Your task to perform on an android device: Open Chrome and go to settings Image 0: 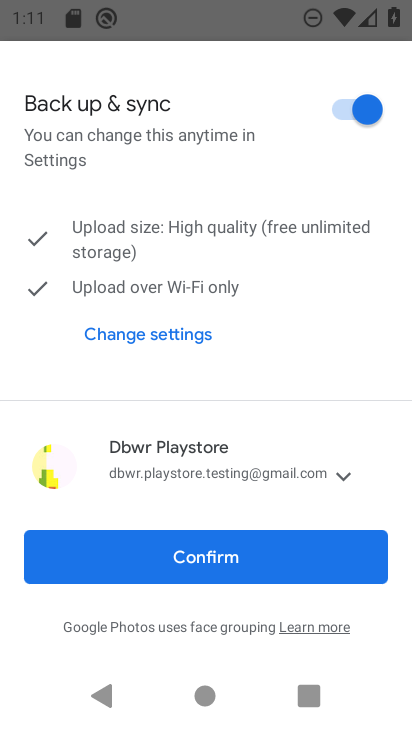
Step 0: press home button
Your task to perform on an android device: Open Chrome and go to settings Image 1: 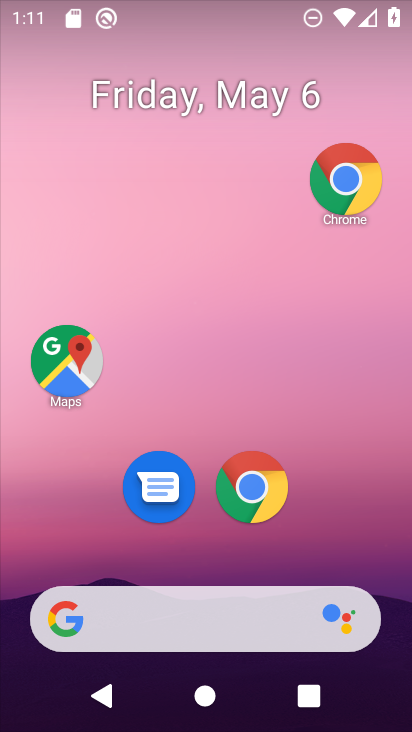
Step 1: click (352, 203)
Your task to perform on an android device: Open Chrome and go to settings Image 2: 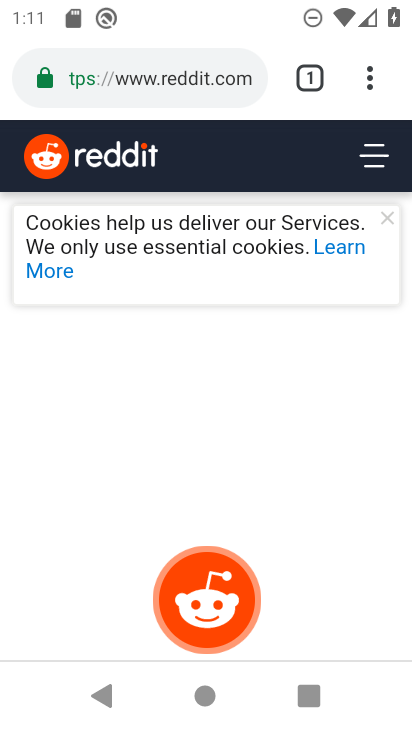
Step 2: click (361, 95)
Your task to perform on an android device: Open Chrome and go to settings Image 3: 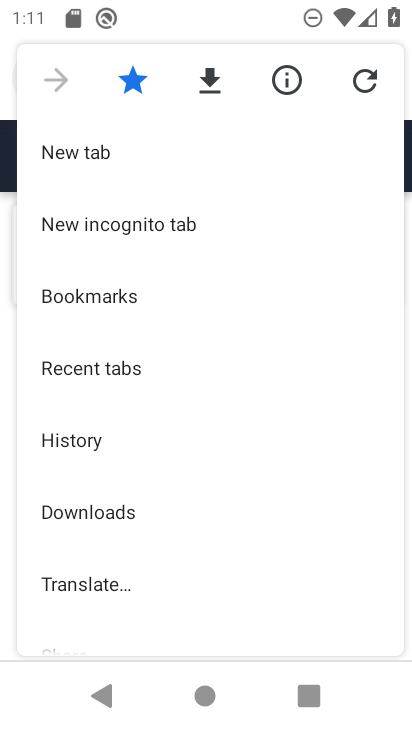
Step 3: drag from (207, 554) to (219, 278)
Your task to perform on an android device: Open Chrome and go to settings Image 4: 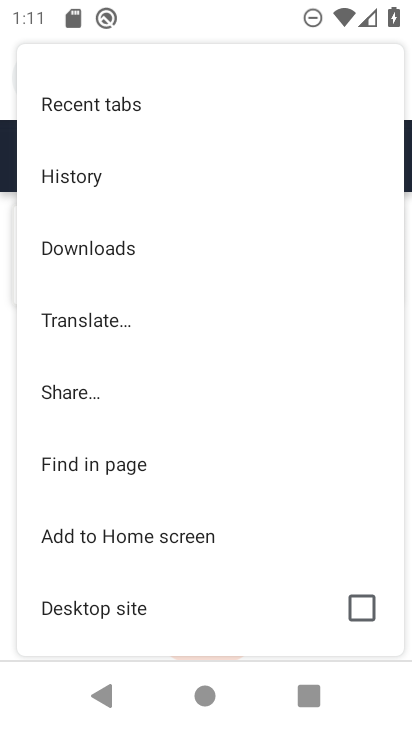
Step 4: drag from (184, 523) to (238, 257)
Your task to perform on an android device: Open Chrome and go to settings Image 5: 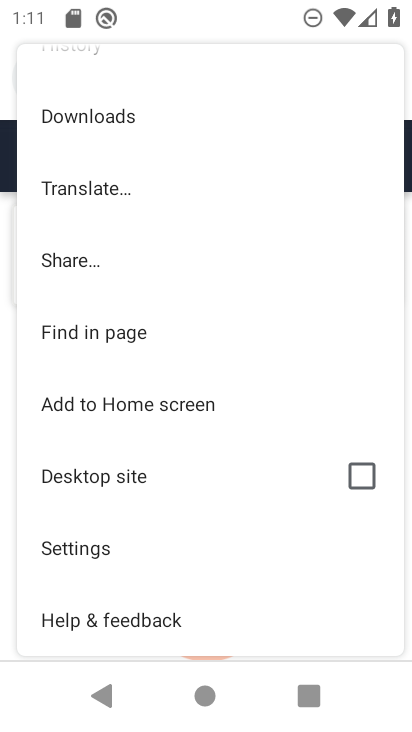
Step 5: click (183, 536)
Your task to perform on an android device: Open Chrome and go to settings Image 6: 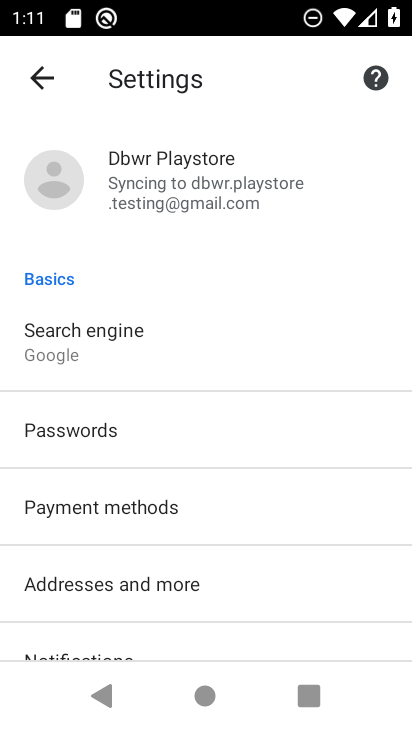
Step 6: task complete